Your task to perform on an android device: Open the web browser Image 0: 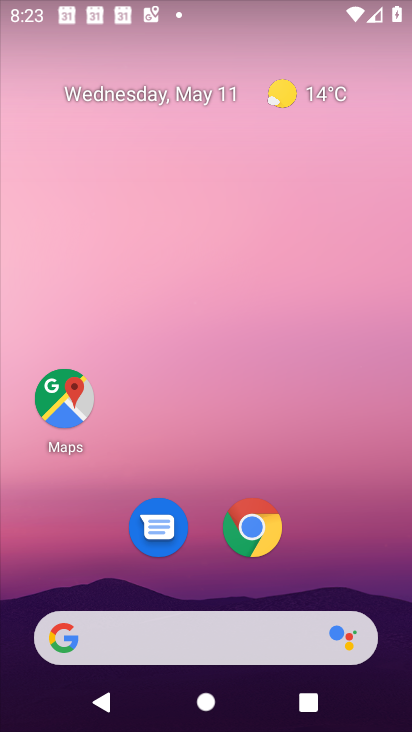
Step 0: click (145, 644)
Your task to perform on an android device: Open the web browser Image 1: 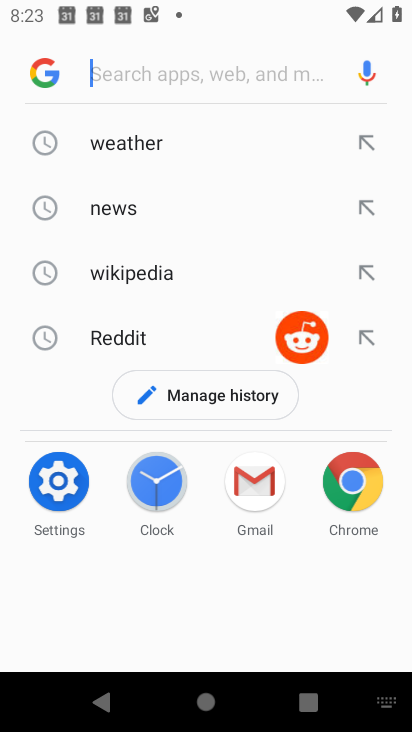
Step 1: task complete